Your task to perform on an android device: Open Chrome and go to settings Image 0: 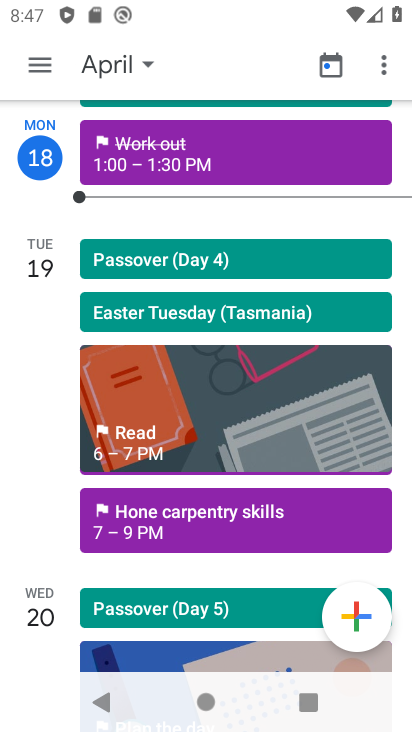
Step 0: press home button
Your task to perform on an android device: Open Chrome and go to settings Image 1: 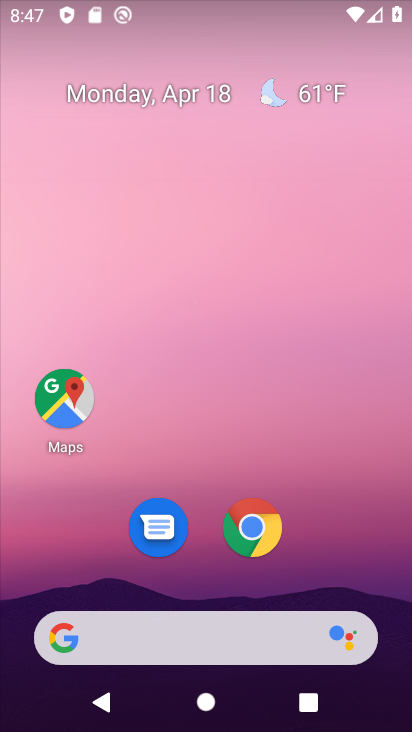
Step 1: click (233, 524)
Your task to perform on an android device: Open Chrome and go to settings Image 2: 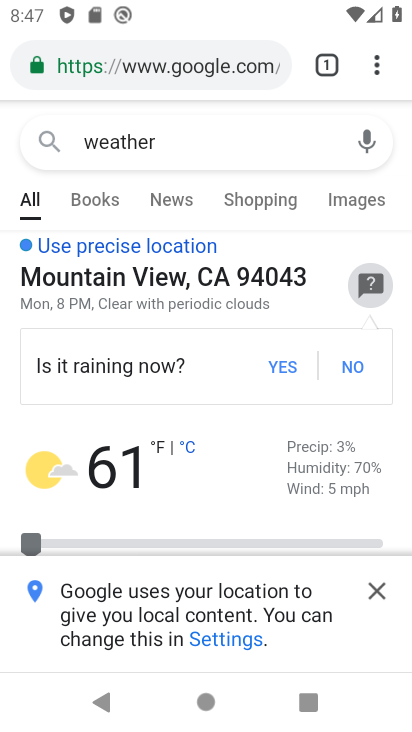
Step 2: click (377, 79)
Your task to perform on an android device: Open Chrome and go to settings Image 3: 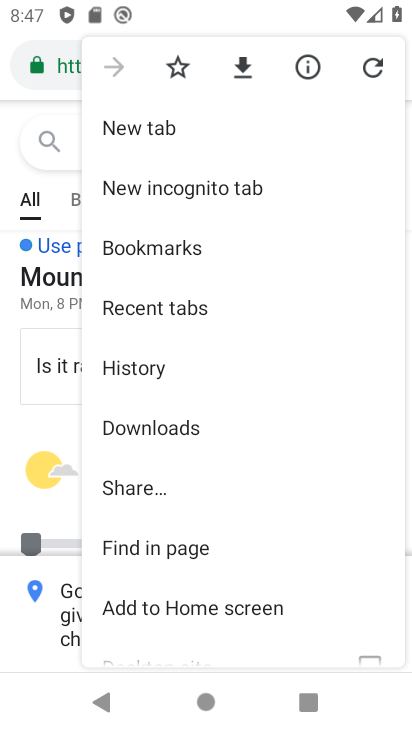
Step 3: drag from (187, 621) to (263, 110)
Your task to perform on an android device: Open Chrome and go to settings Image 4: 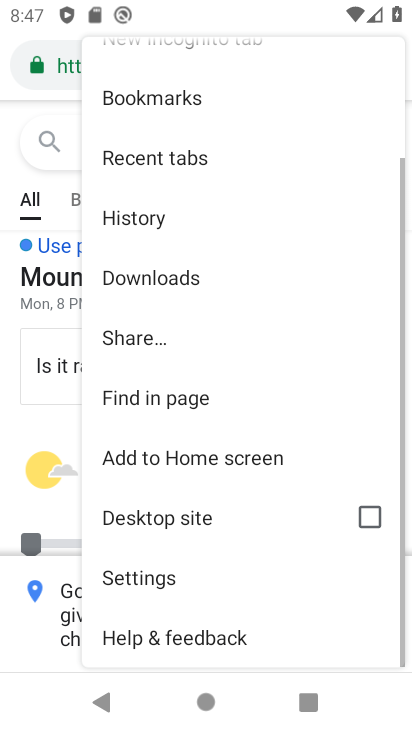
Step 4: click (170, 574)
Your task to perform on an android device: Open Chrome and go to settings Image 5: 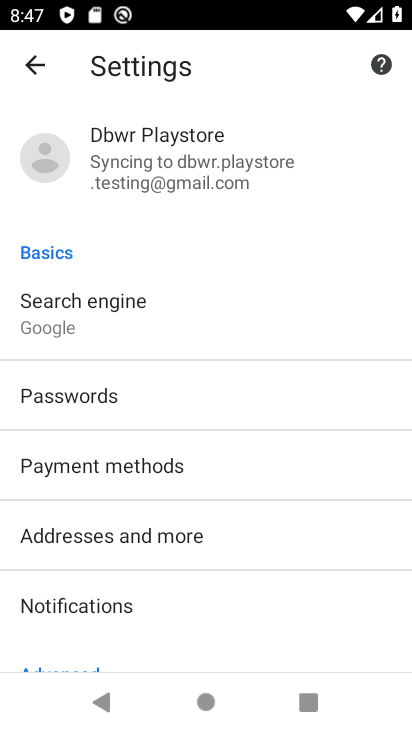
Step 5: task complete